Your task to perform on an android device: toggle javascript in the chrome app Image 0: 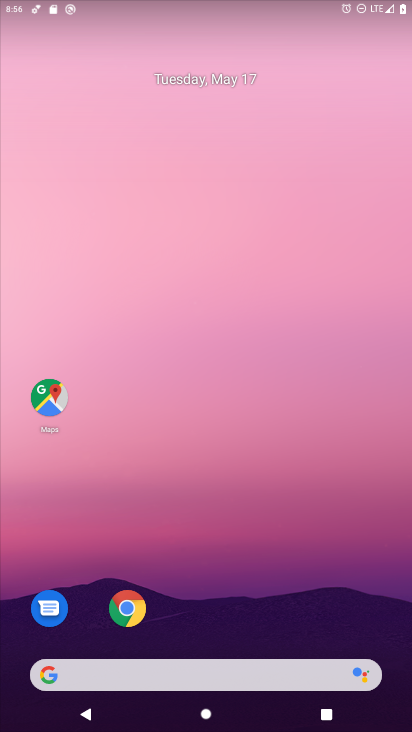
Step 0: click (122, 594)
Your task to perform on an android device: toggle javascript in the chrome app Image 1: 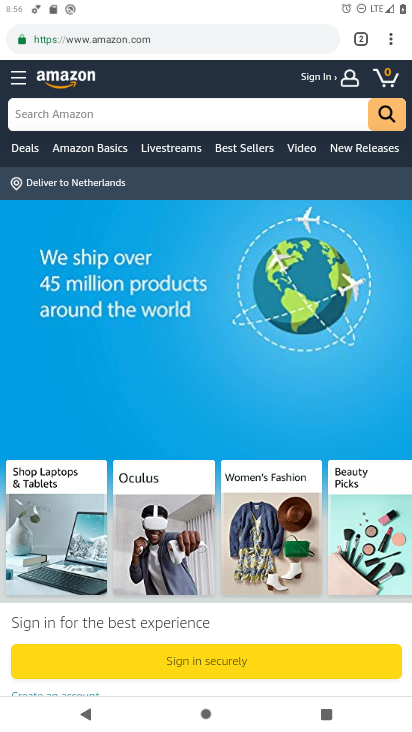
Step 1: click (389, 44)
Your task to perform on an android device: toggle javascript in the chrome app Image 2: 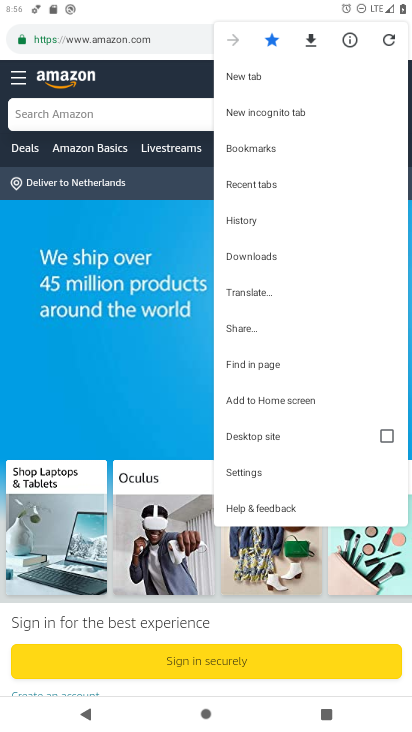
Step 2: click (255, 467)
Your task to perform on an android device: toggle javascript in the chrome app Image 3: 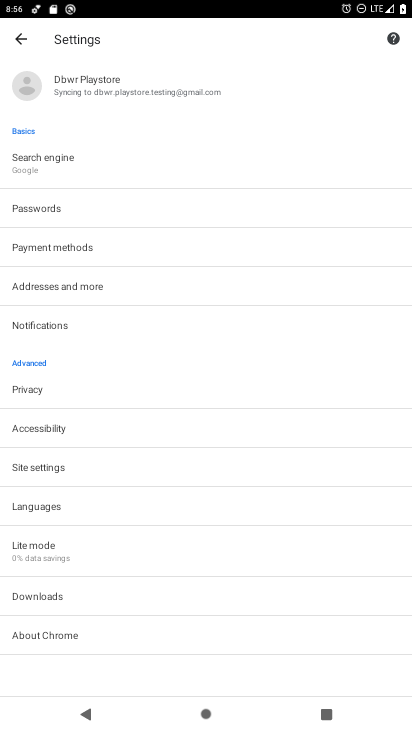
Step 3: click (43, 508)
Your task to perform on an android device: toggle javascript in the chrome app Image 4: 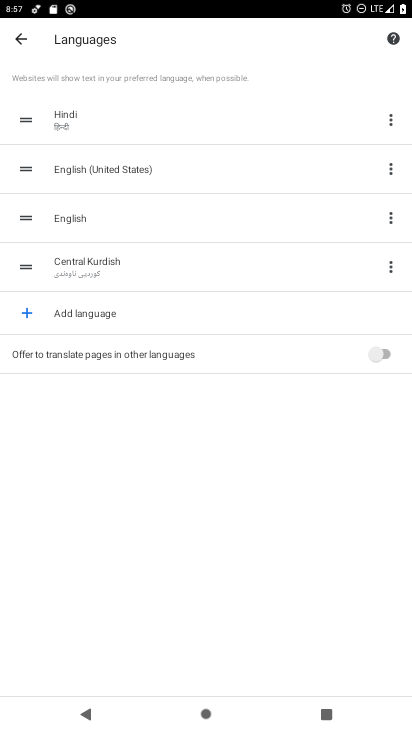
Step 4: click (29, 39)
Your task to perform on an android device: toggle javascript in the chrome app Image 5: 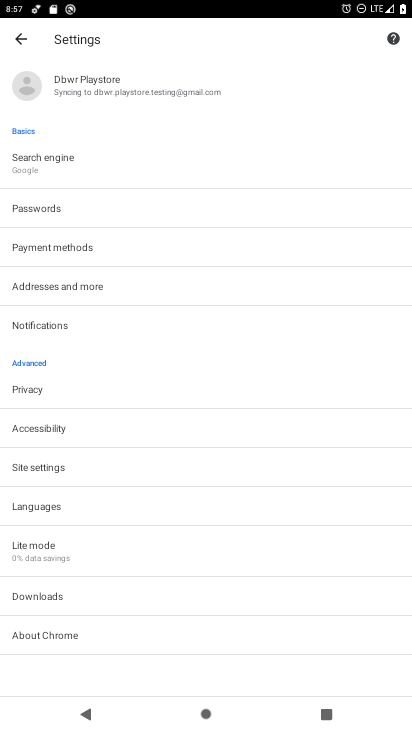
Step 5: click (74, 473)
Your task to perform on an android device: toggle javascript in the chrome app Image 6: 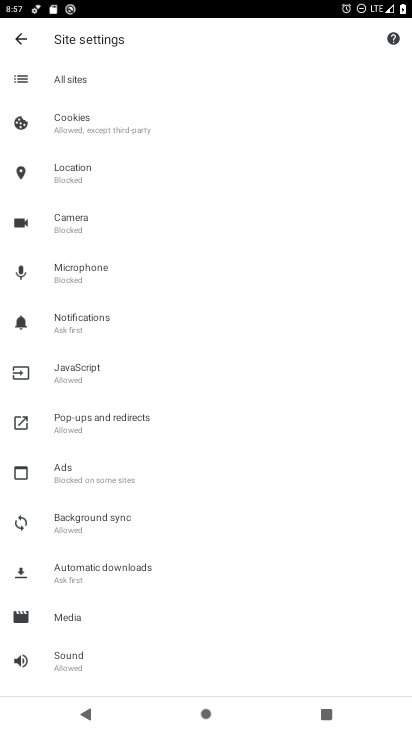
Step 6: click (102, 377)
Your task to perform on an android device: toggle javascript in the chrome app Image 7: 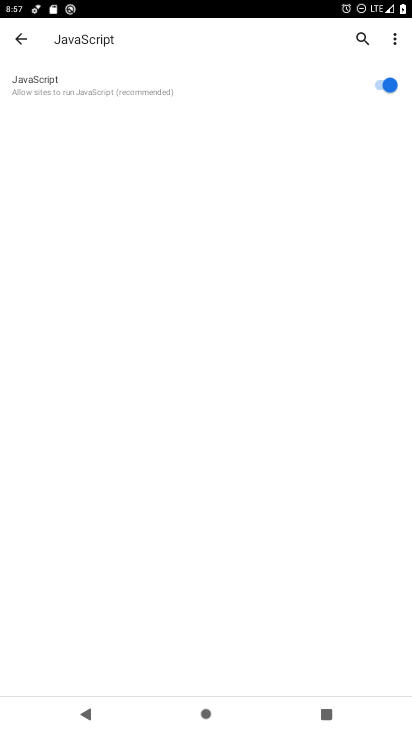
Step 7: click (370, 83)
Your task to perform on an android device: toggle javascript in the chrome app Image 8: 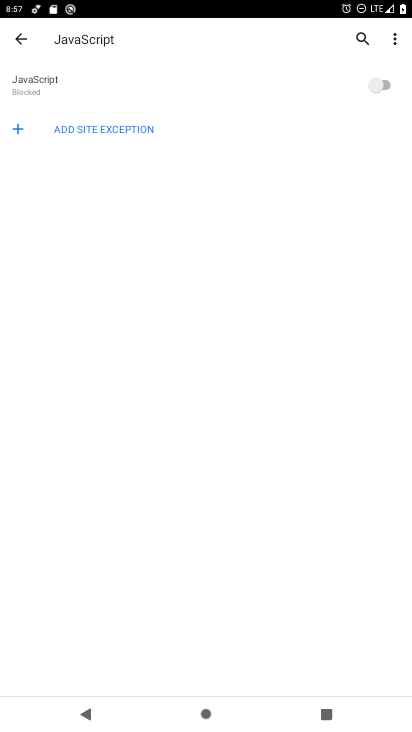
Step 8: task complete